Your task to perform on an android device: toggle translation in the chrome app Image 0: 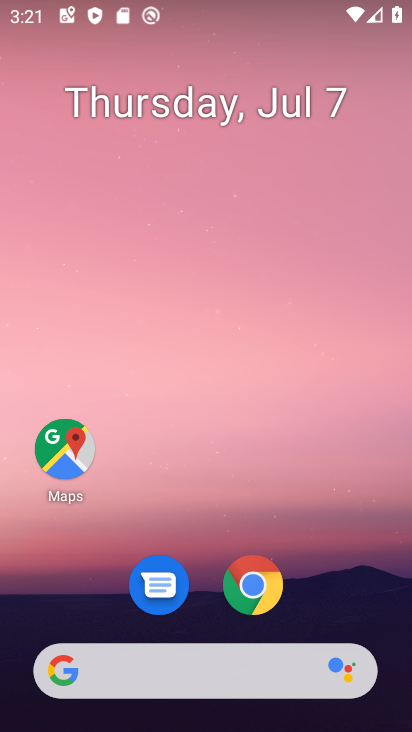
Step 0: click (263, 581)
Your task to perform on an android device: toggle translation in the chrome app Image 1: 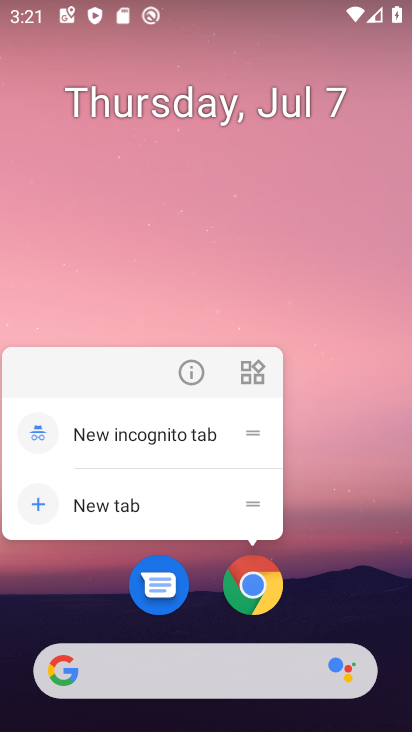
Step 1: click (263, 582)
Your task to perform on an android device: toggle translation in the chrome app Image 2: 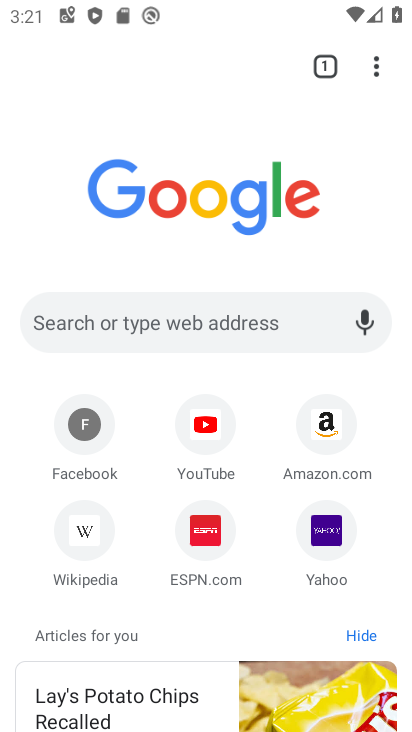
Step 2: click (374, 64)
Your task to perform on an android device: toggle translation in the chrome app Image 3: 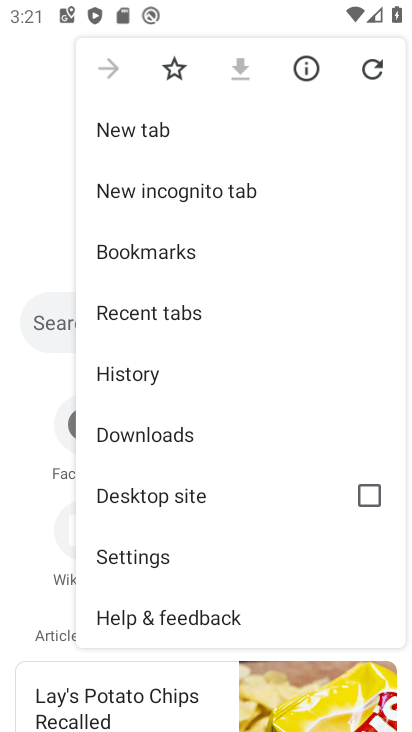
Step 3: click (167, 549)
Your task to perform on an android device: toggle translation in the chrome app Image 4: 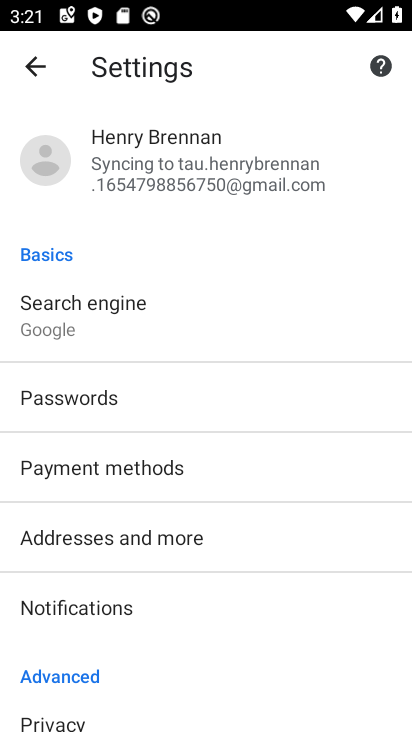
Step 4: drag from (233, 632) to (220, 317)
Your task to perform on an android device: toggle translation in the chrome app Image 5: 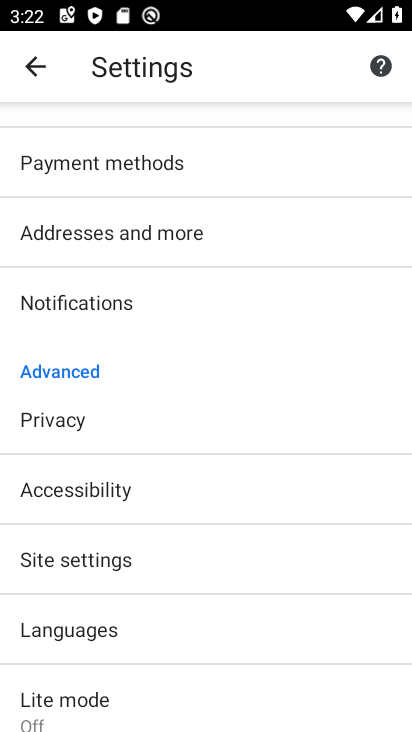
Step 5: click (119, 625)
Your task to perform on an android device: toggle translation in the chrome app Image 6: 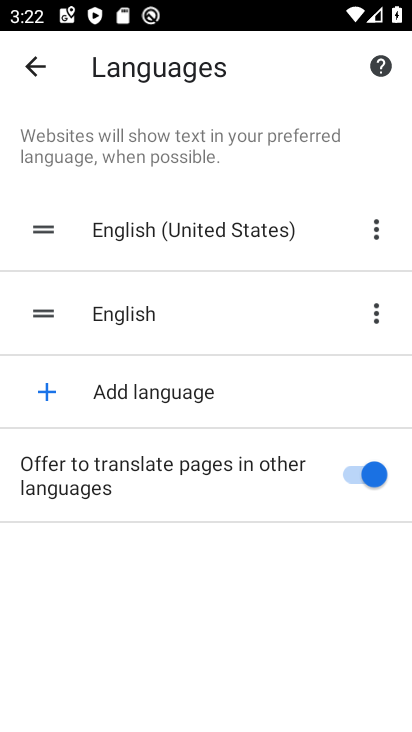
Step 6: click (359, 464)
Your task to perform on an android device: toggle translation in the chrome app Image 7: 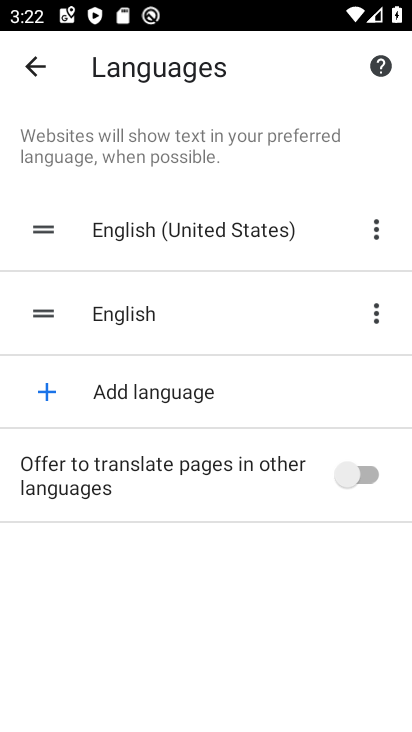
Step 7: task complete